Your task to perform on an android device: empty trash in the gmail app Image 0: 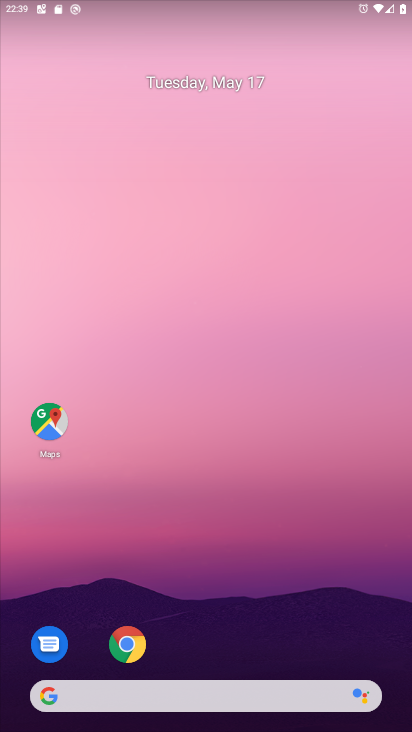
Step 0: press home button
Your task to perform on an android device: empty trash in the gmail app Image 1: 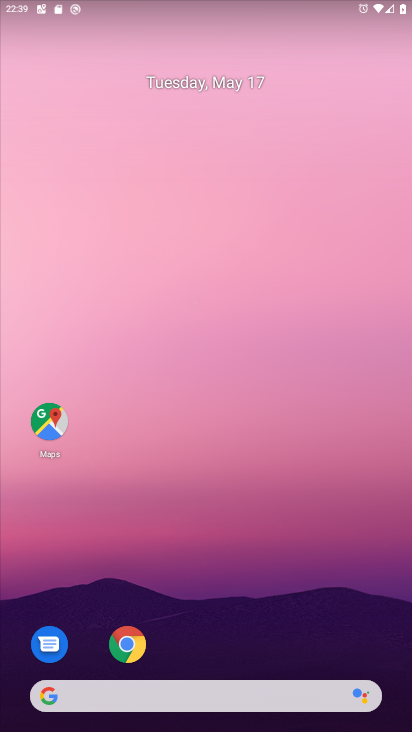
Step 1: drag from (212, 606) to (210, 73)
Your task to perform on an android device: empty trash in the gmail app Image 2: 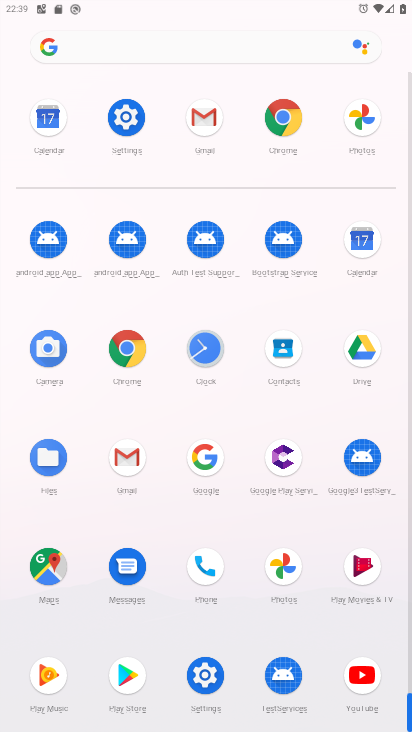
Step 2: click (202, 118)
Your task to perform on an android device: empty trash in the gmail app Image 3: 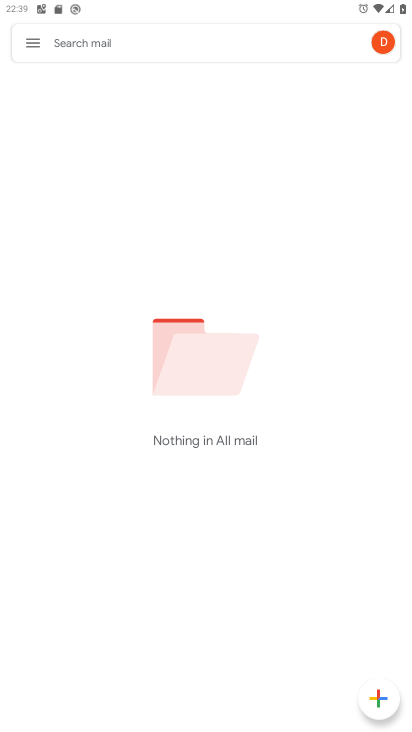
Step 3: click (27, 38)
Your task to perform on an android device: empty trash in the gmail app Image 4: 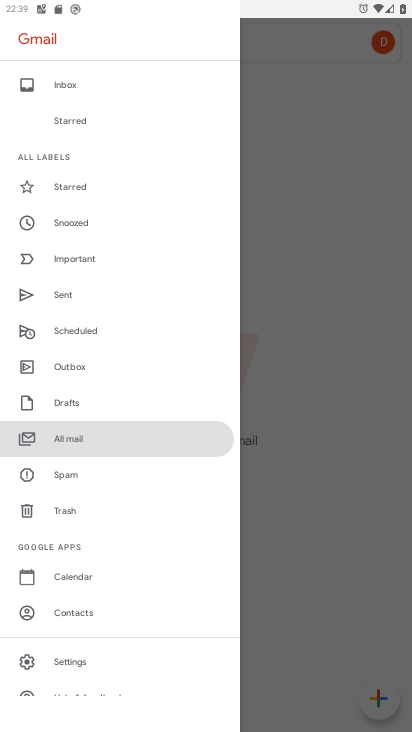
Step 4: click (72, 517)
Your task to perform on an android device: empty trash in the gmail app Image 5: 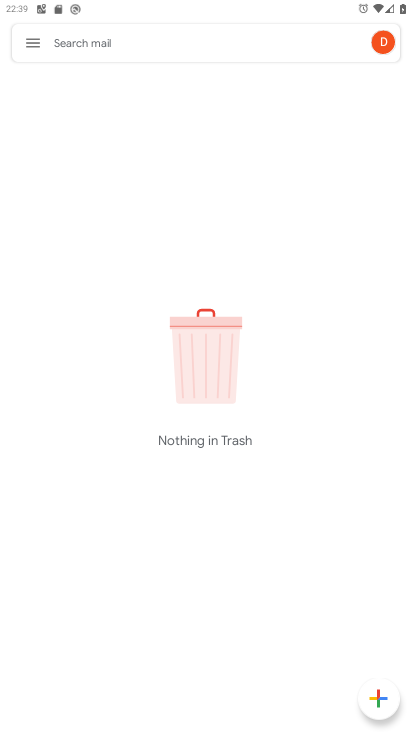
Step 5: task complete